Your task to perform on an android device: Go to display settings Image 0: 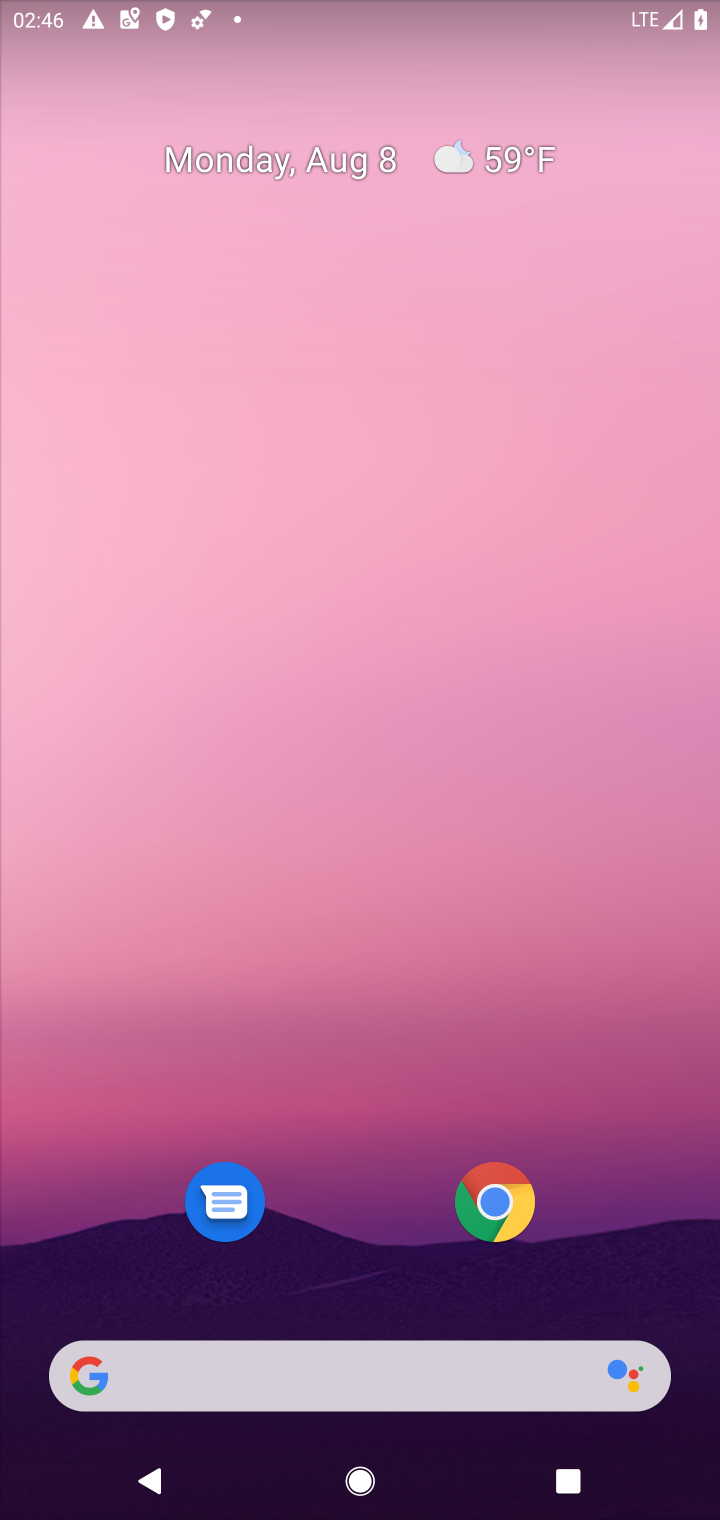
Step 0: drag from (346, 1185) to (409, 338)
Your task to perform on an android device: Go to display settings Image 1: 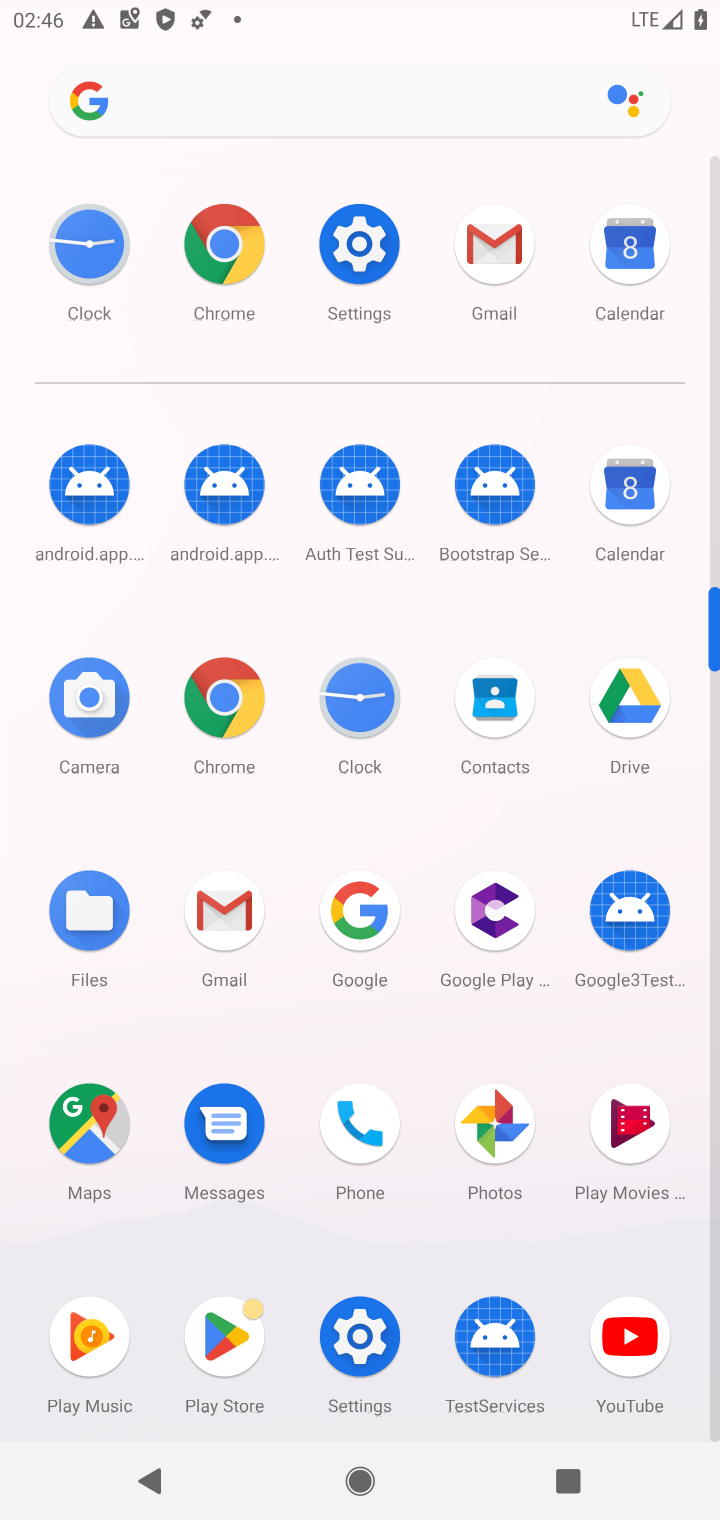
Step 1: click (354, 248)
Your task to perform on an android device: Go to display settings Image 2: 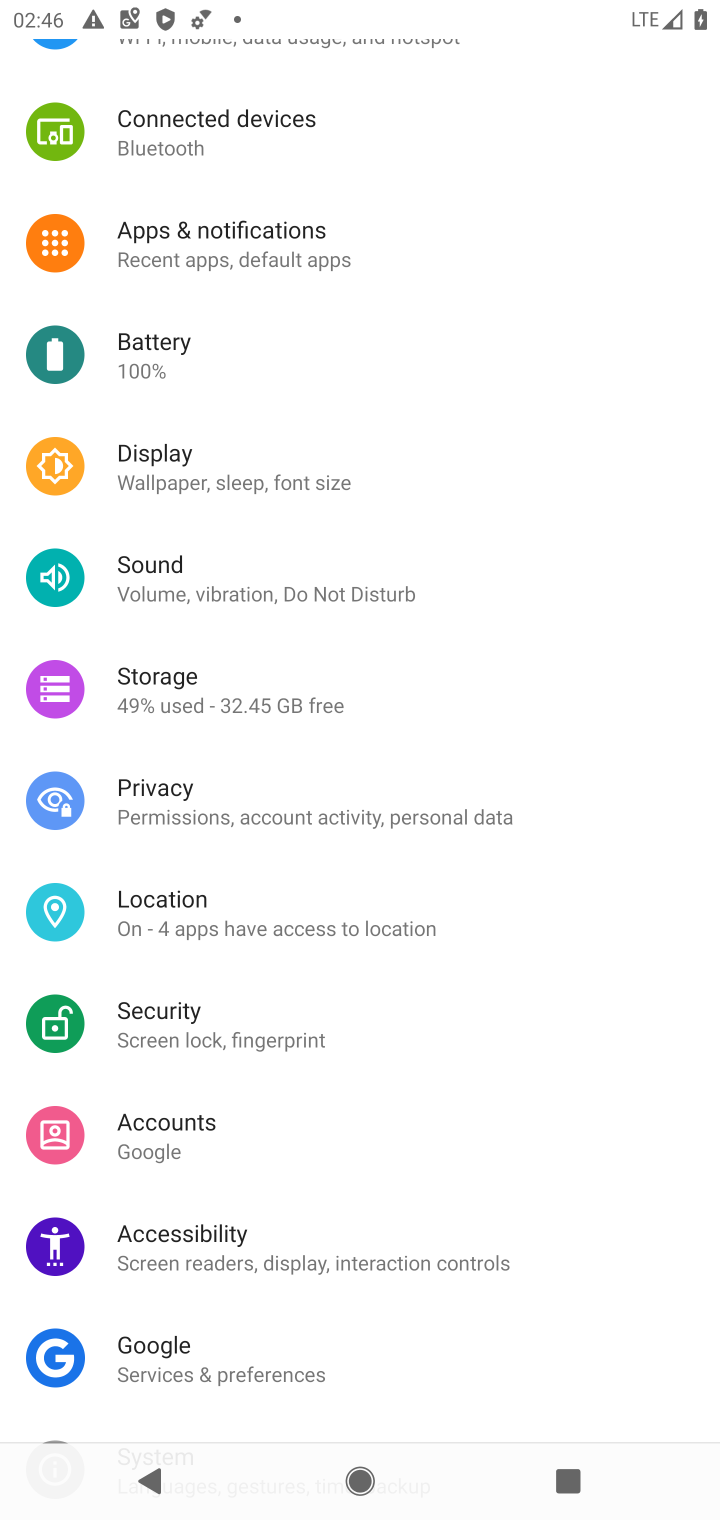
Step 2: click (173, 479)
Your task to perform on an android device: Go to display settings Image 3: 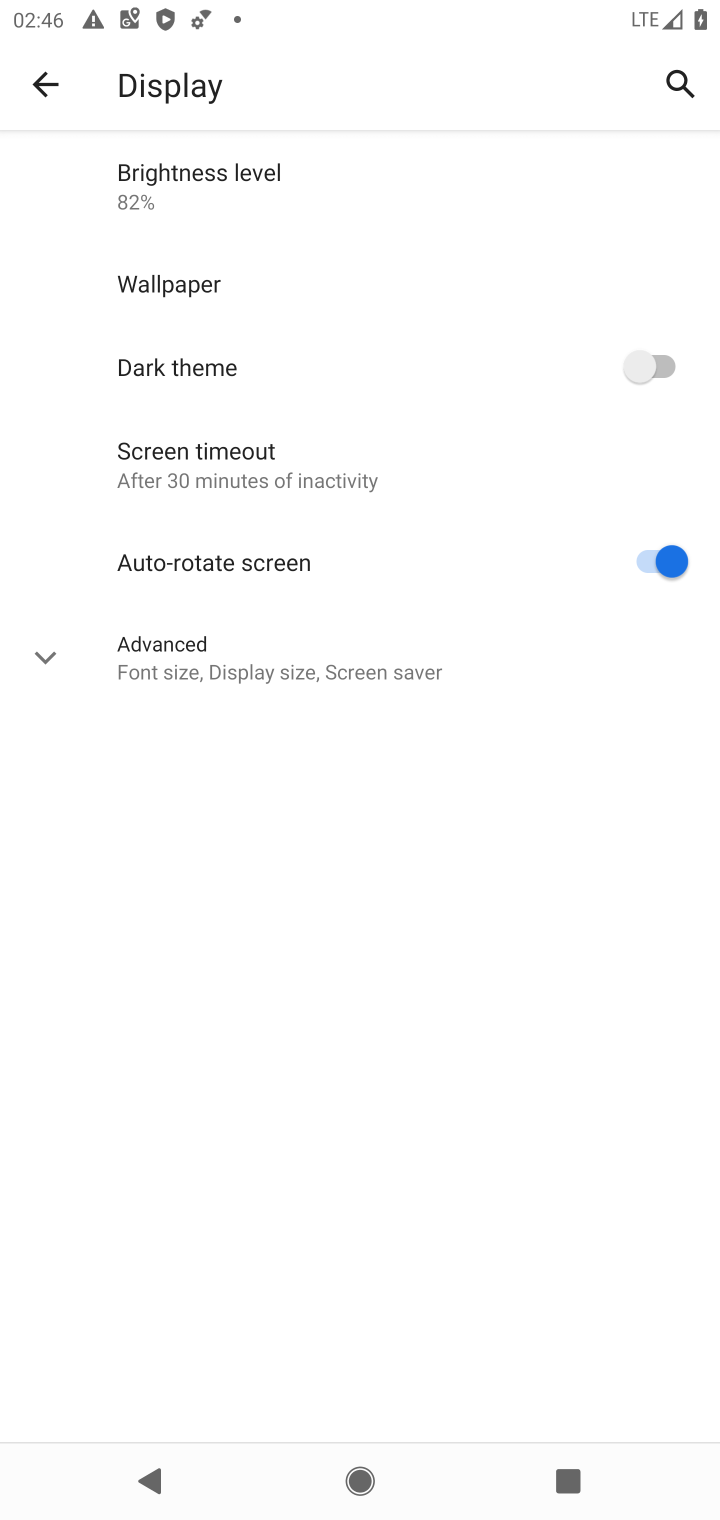
Step 3: task complete